Your task to perform on an android device: change the clock display to analog Image 0: 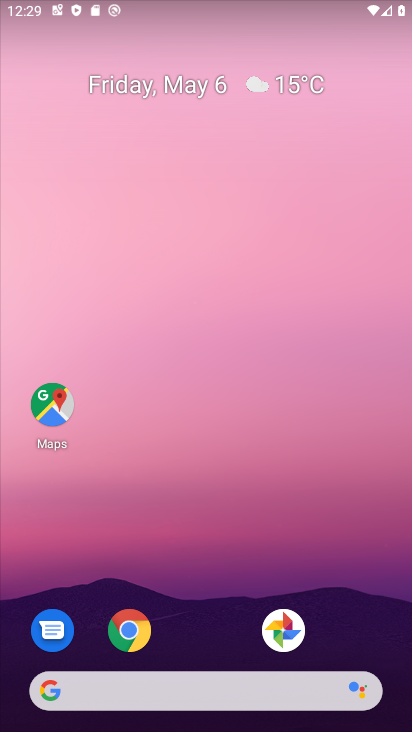
Step 0: drag from (219, 569) to (219, 328)
Your task to perform on an android device: change the clock display to analog Image 1: 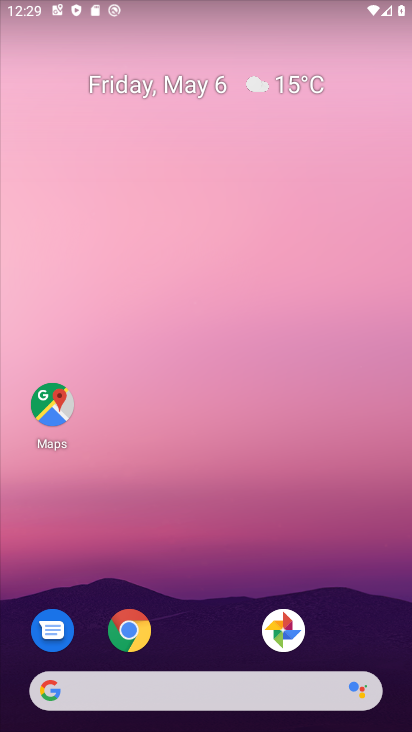
Step 1: drag from (195, 478) to (170, 3)
Your task to perform on an android device: change the clock display to analog Image 2: 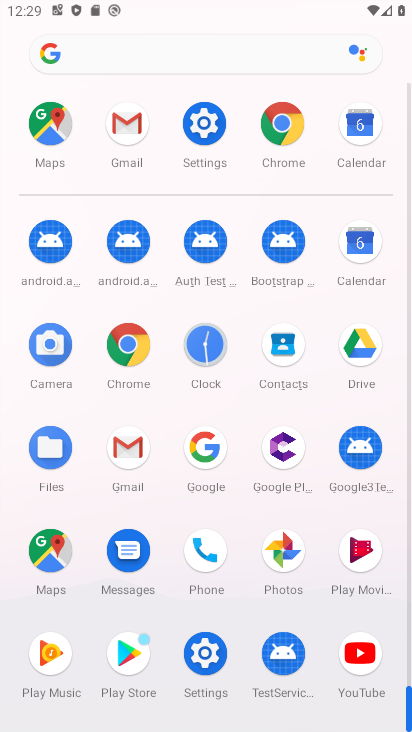
Step 2: click (207, 335)
Your task to perform on an android device: change the clock display to analog Image 3: 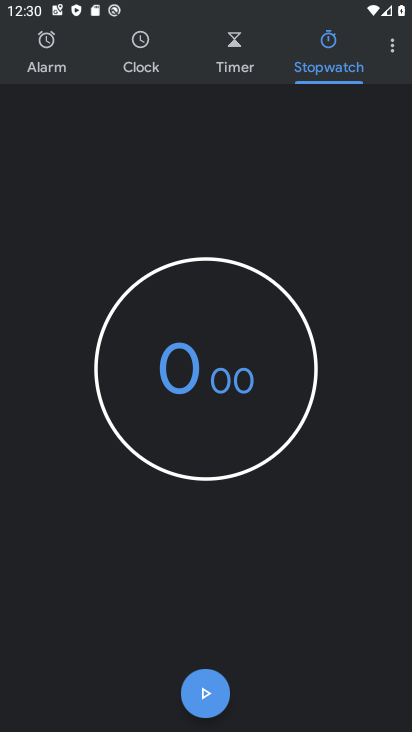
Step 3: drag from (389, 53) to (286, 207)
Your task to perform on an android device: change the clock display to analog Image 4: 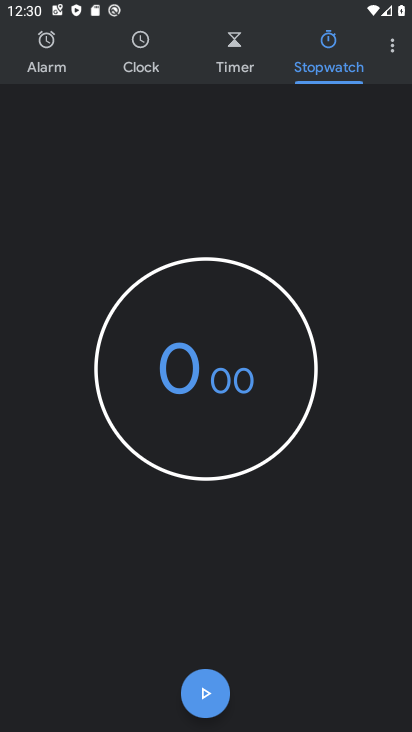
Step 4: click (392, 42)
Your task to perform on an android device: change the clock display to analog Image 5: 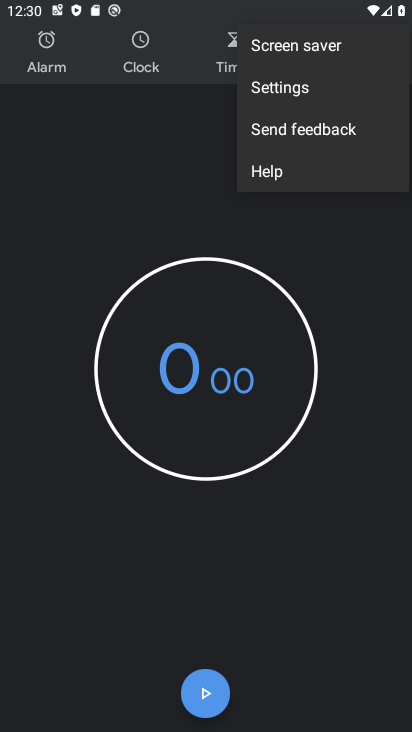
Step 5: click (302, 97)
Your task to perform on an android device: change the clock display to analog Image 6: 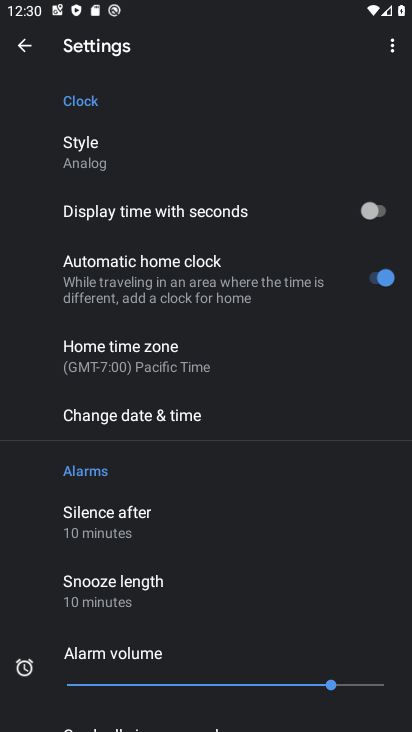
Step 6: click (106, 150)
Your task to perform on an android device: change the clock display to analog Image 7: 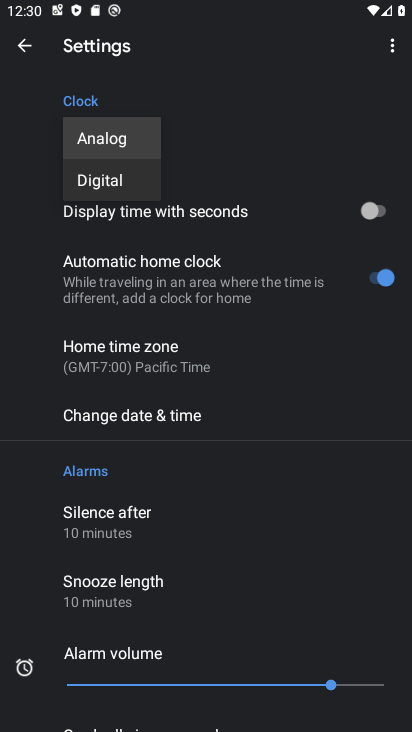
Step 7: task complete